Your task to perform on an android device: Go to Google Image 0: 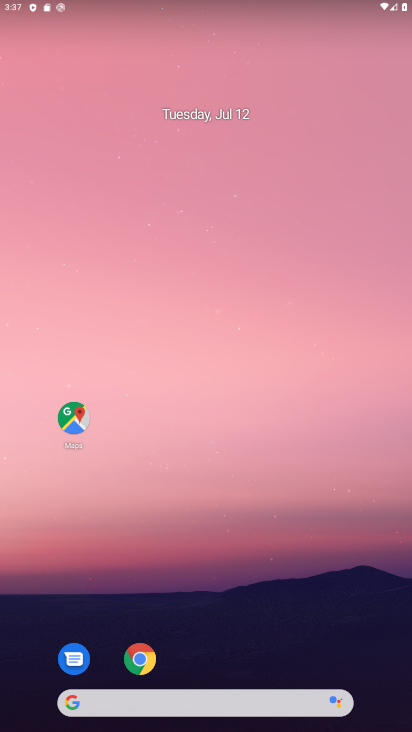
Step 0: press home button
Your task to perform on an android device: Go to Google Image 1: 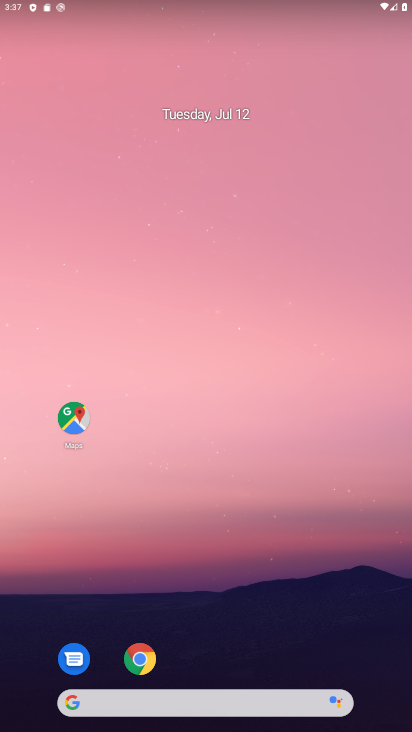
Step 1: click (254, 171)
Your task to perform on an android device: Go to Google Image 2: 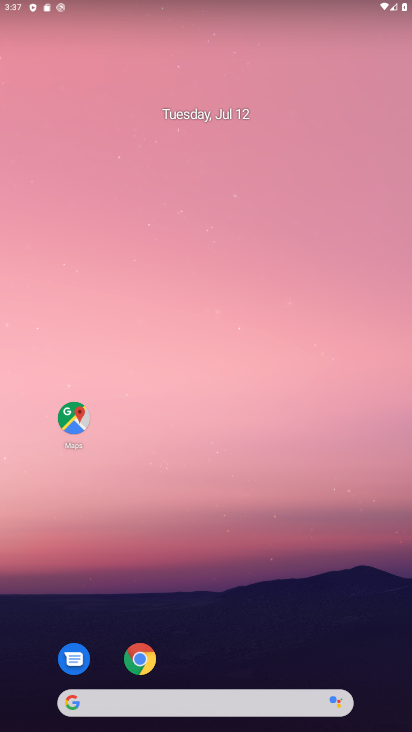
Step 2: drag from (231, 589) to (238, 7)
Your task to perform on an android device: Go to Google Image 3: 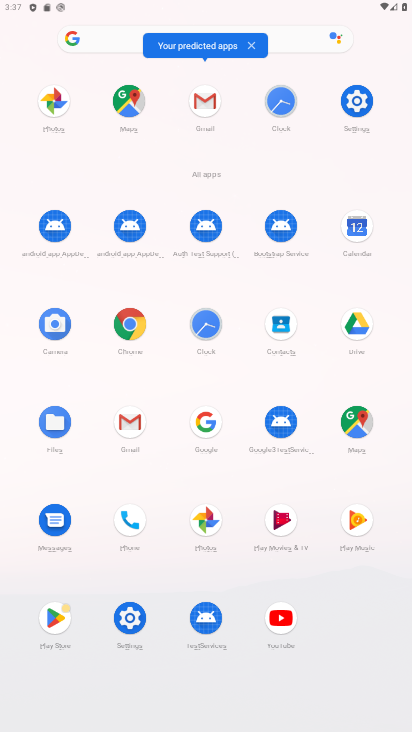
Step 3: click (206, 416)
Your task to perform on an android device: Go to Google Image 4: 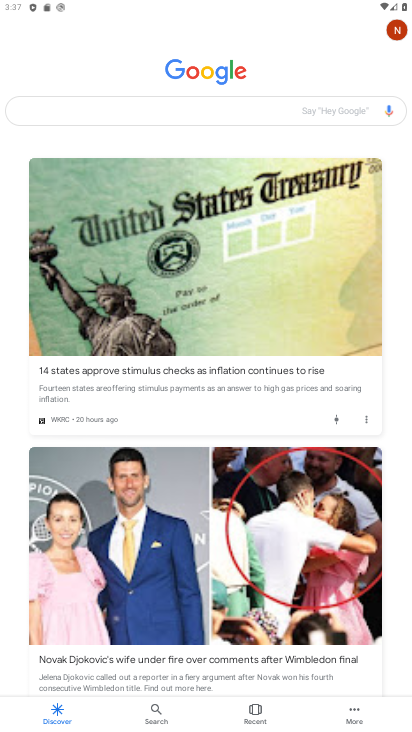
Step 4: task complete